Your task to perform on an android device: change timer sound Image 0: 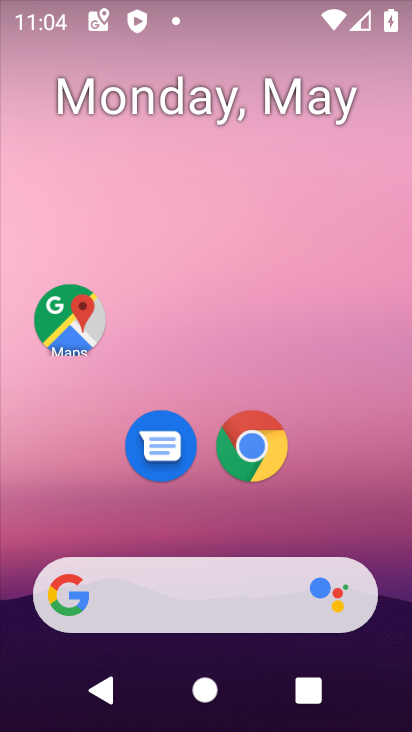
Step 0: drag from (348, 464) to (256, 18)
Your task to perform on an android device: change timer sound Image 1: 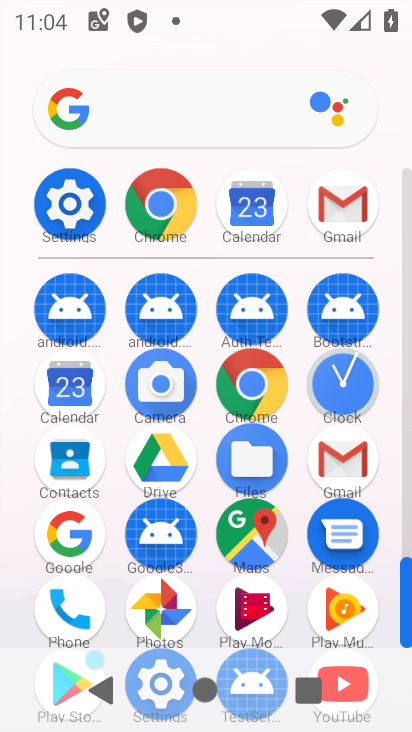
Step 1: click (344, 383)
Your task to perform on an android device: change timer sound Image 2: 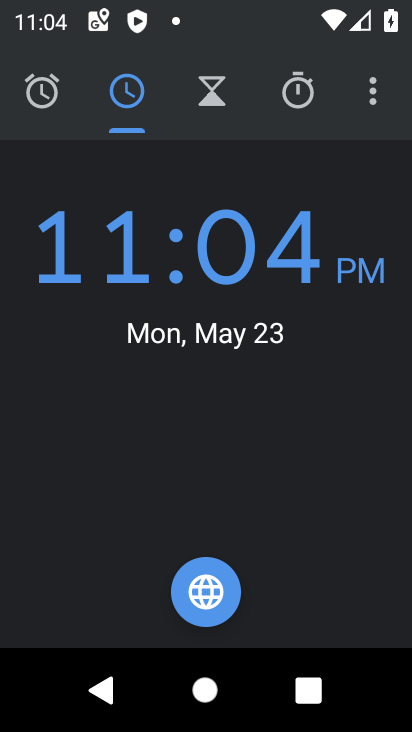
Step 2: click (388, 90)
Your task to perform on an android device: change timer sound Image 3: 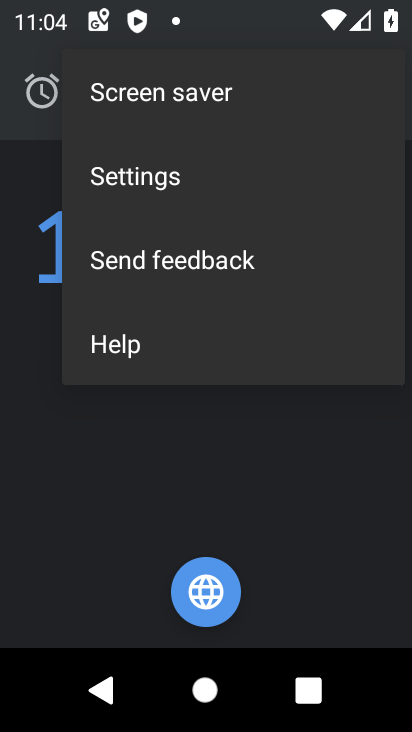
Step 3: click (191, 180)
Your task to perform on an android device: change timer sound Image 4: 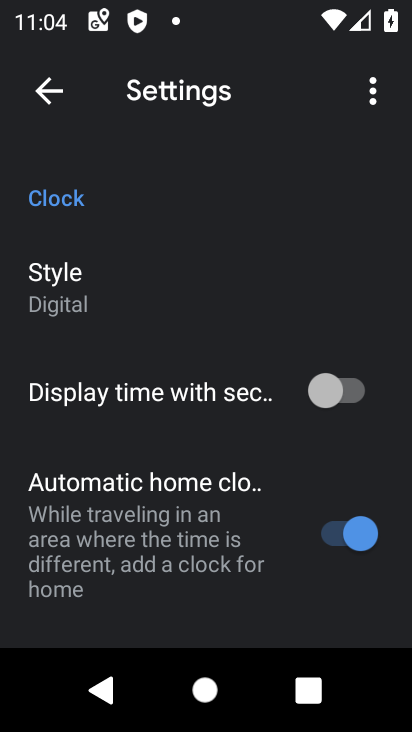
Step 4: drag from (178, 519) to (180, 157)
Your task to perform on an android device: change timer sound Image 5: 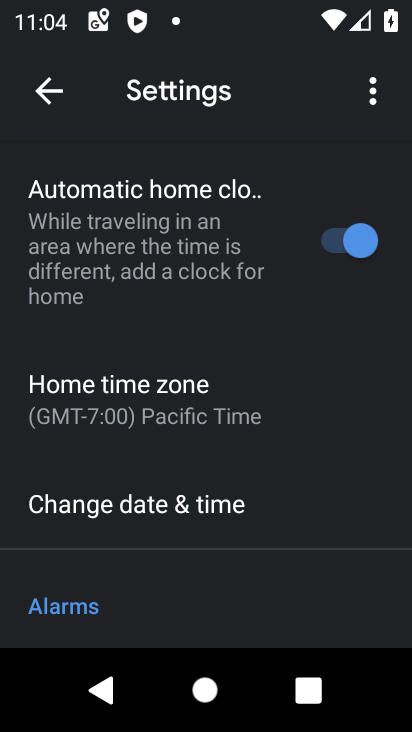
Step 5: drag from (220, 521) to (234, 143)
Your task to perform on an android device: change timer sound Image 6: 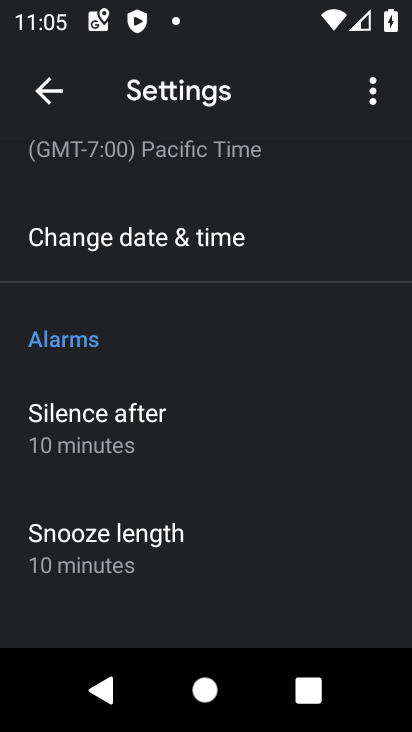
Step 6: drag from (111, 536) to (158, 201)
Your task to perform on an android device: change timer sound Image 7: 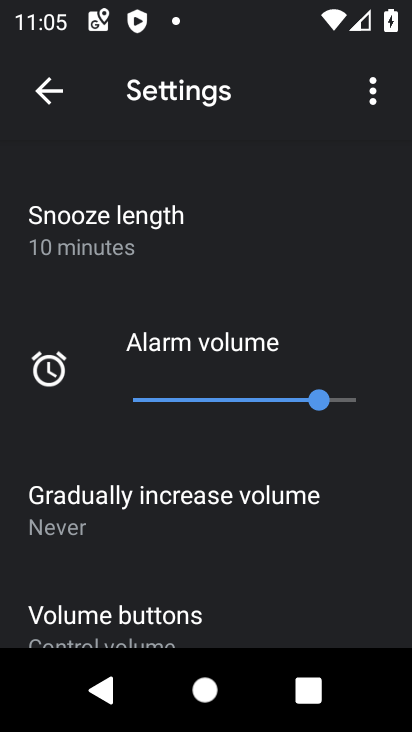
Step 7: drag from (223, 534) to (268, 155)
Your task to perform on an android device: change timer sound Image 8: 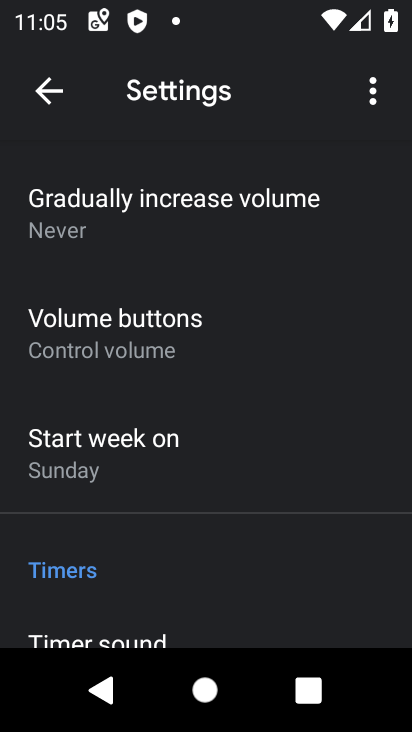
Step 8: drag from (202, 547) to (217, 189)
Your task to perform on an android device: change timer sound Image 9: 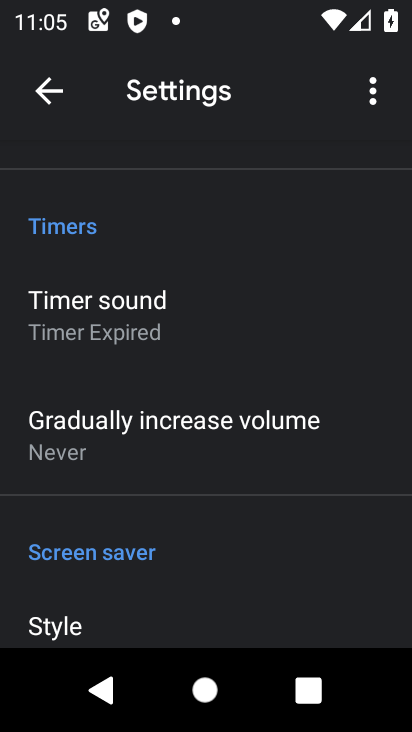
Step 9: click (129, 298)
Your task to perform on an android device: change timer sound Image 10: 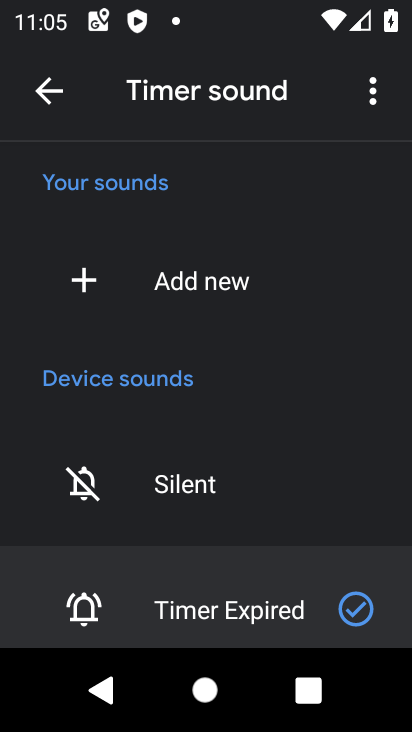
Step 10: drag from (185, 531) to (216, 206)
Your task to perform on an android device: change timer sound Image 11: 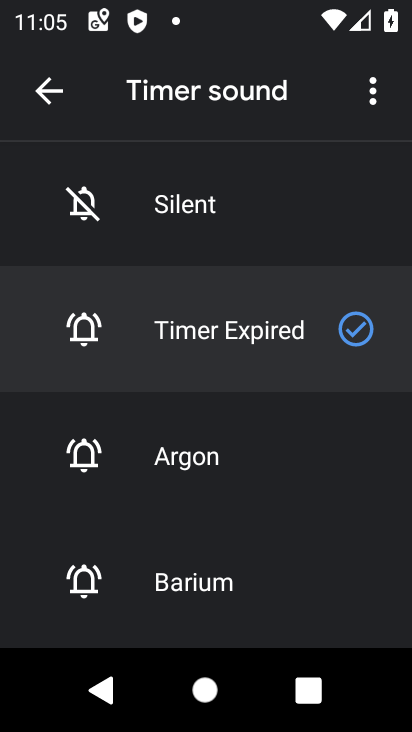
Step 11: click (212, 453)
Your task to perform on an android device: change timer sound Image 12: 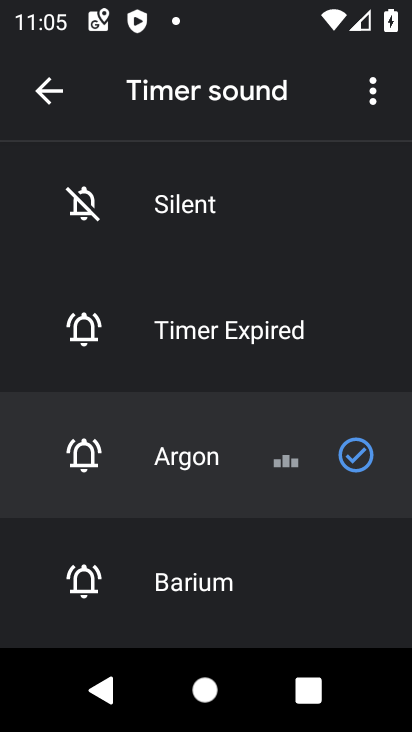
Step 12: task complete